Your task to perform on an android device: Search for Italian restaurants on Maps Image 0: 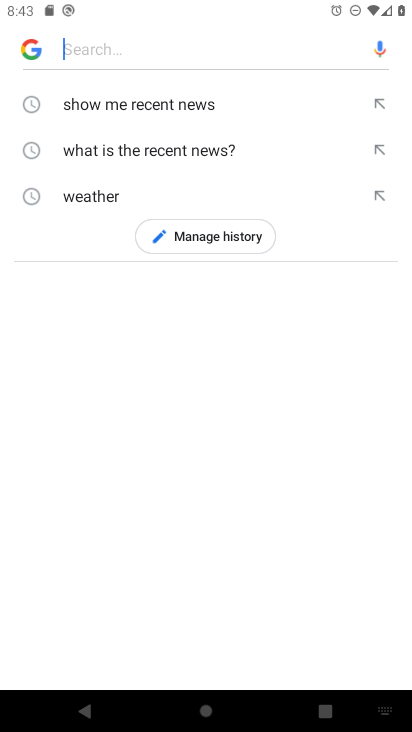
Step 0: press home button
Your task to perform on an android device: Search for Italian restaurants on Maps Image 1: 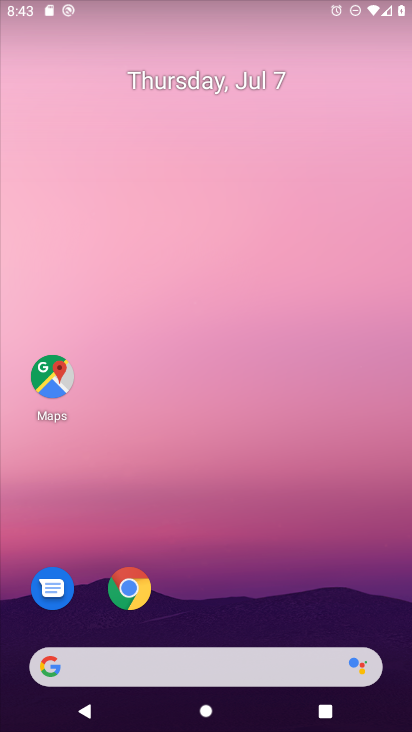
Step 1: drag from (280, 628) to (243, 423)
Your task to perform on an android device: Search for Italian restaurants on Maps Image 2: 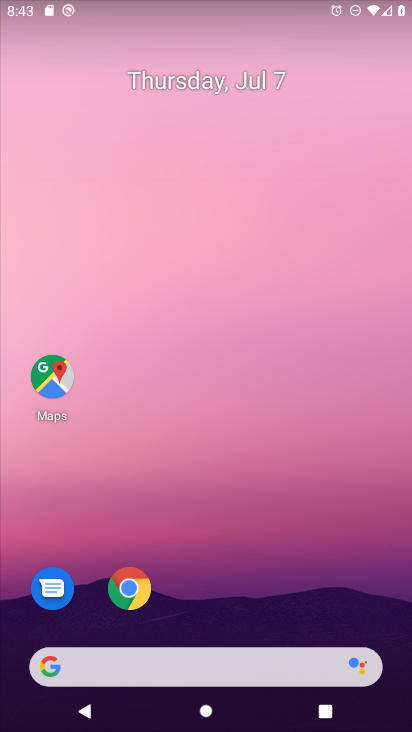
Step 2: click (50, 381)
Your task to perform on an android device: Search for Italian restaurants on Maps Image 3: 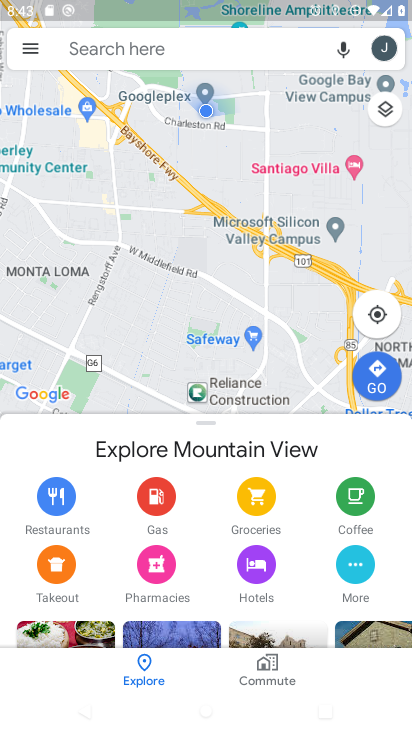
Step 3: click (179, 41)
Your task to perform on an android device: Search for Italian restaurants on Maps Image 4: 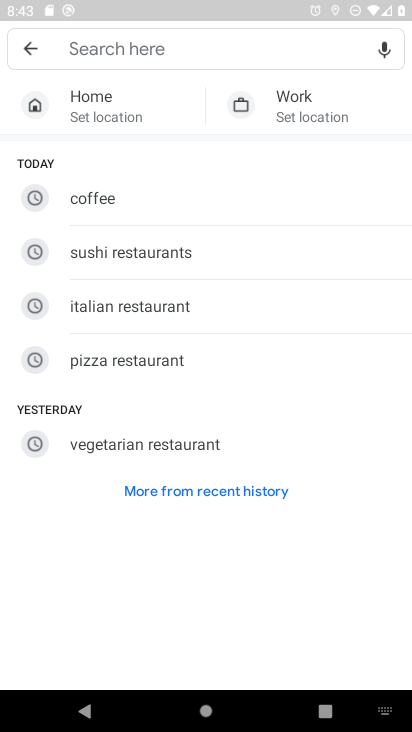
Step 4: type " Italian restaurants "
Your task to perform on an android device: Search for Italian restaurants on Maps Image 5: 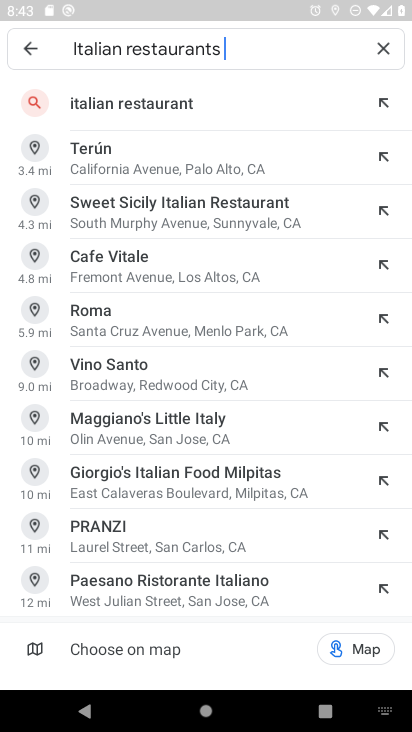
Step 5: click (199, 92)
Your task to perform on an android device: Search for Italian restaurants on Maps Image 6: 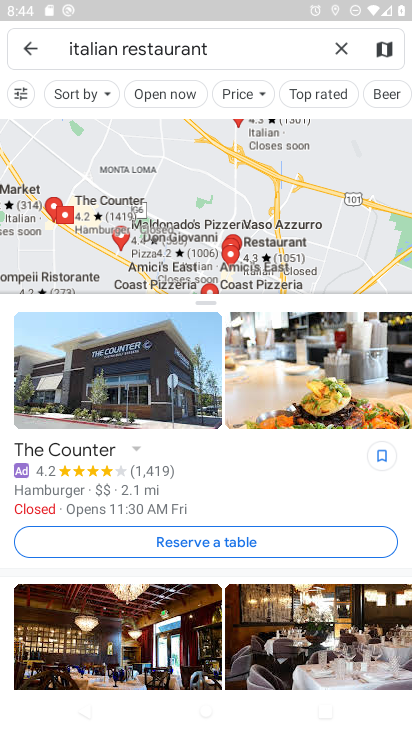
Step 6: task complete